Your task to perform on an android device: Go to accessibility settings Image 0: 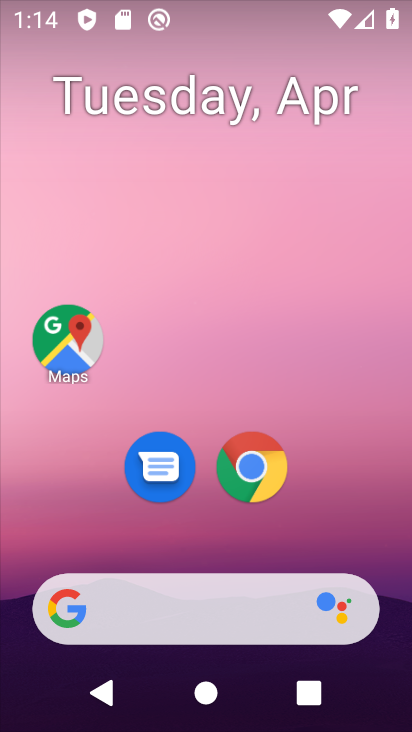
Step 0: drag from (380, 532) to (364, 98)
Your task to perform on an android device: Go to accessibility settings Image 1: 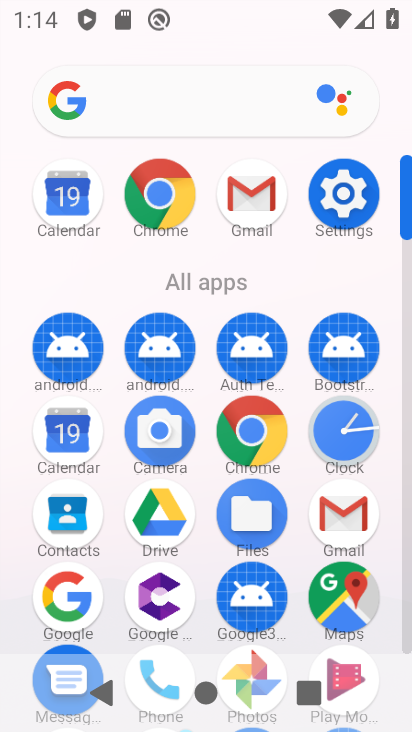
Step 1: click (352, 196)
Your task to perform on an android device: Go to accessibility settings Image 2: 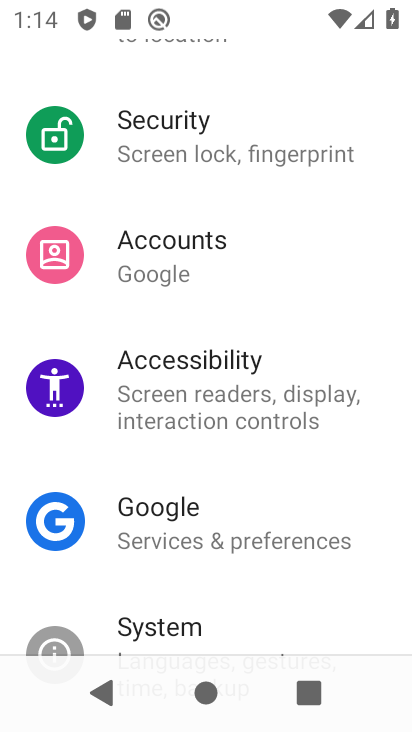
Step 2: click (224, 395)
Your task to perform on an android device: Go to accessibility settings Image 3: 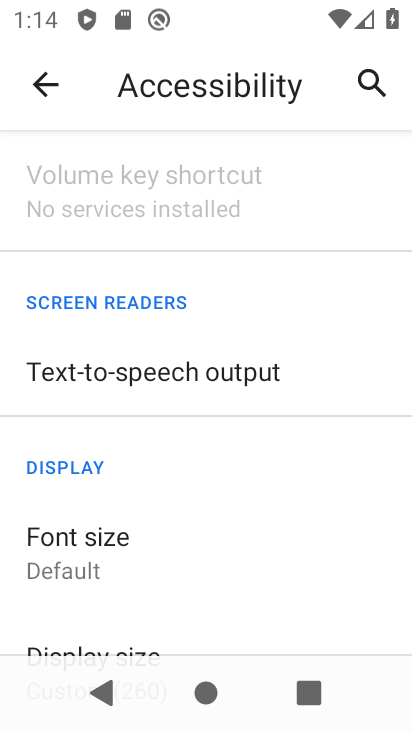
Step 3: task complete